Your task to perform on an android device: Open location settings Image 0: 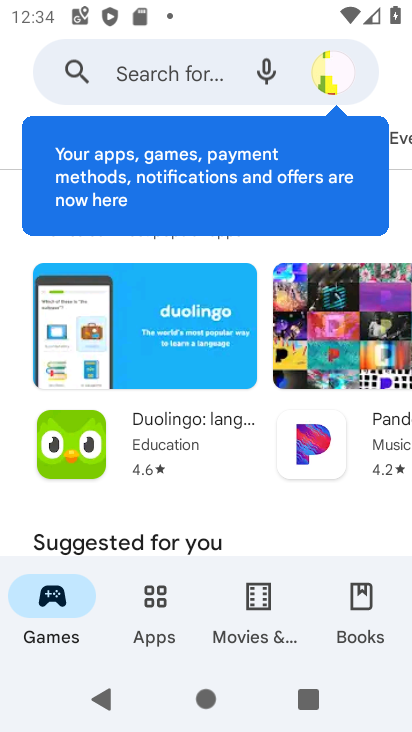
Step 0: press home button
Your task to perform on an android device: Open location settings Image 1: 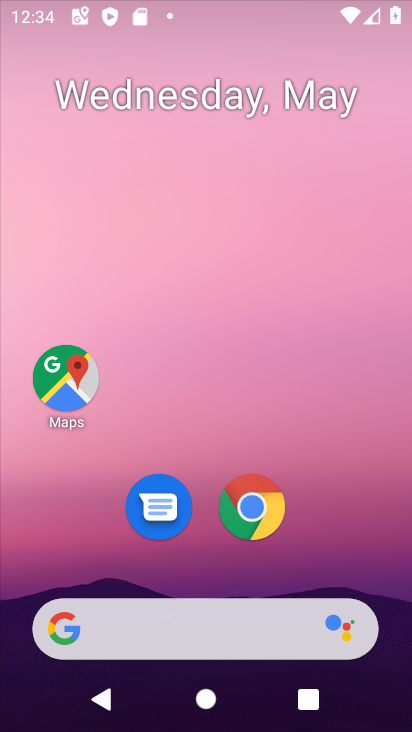
Step 1: drag from (225, 572) to (291, 222)
Your task to perform on an android device: Open location settings Image 2: 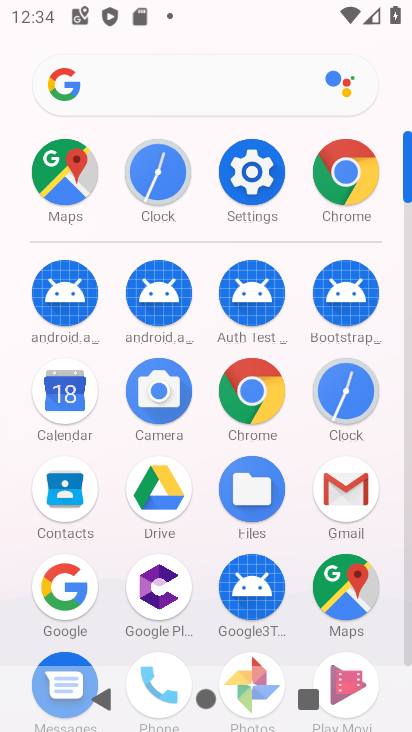
Step 2: click (234, 170)
Your task to perform on an android device: Open location settings Image 3: 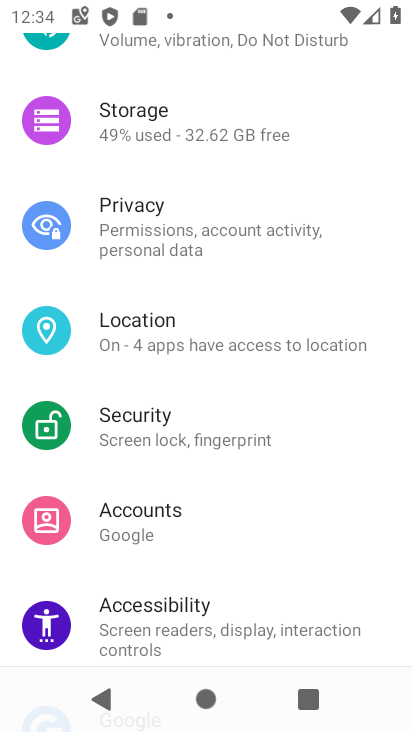
Step 3: click (190, 335)
Your task to perform on an android device: Open location settings Image 4: 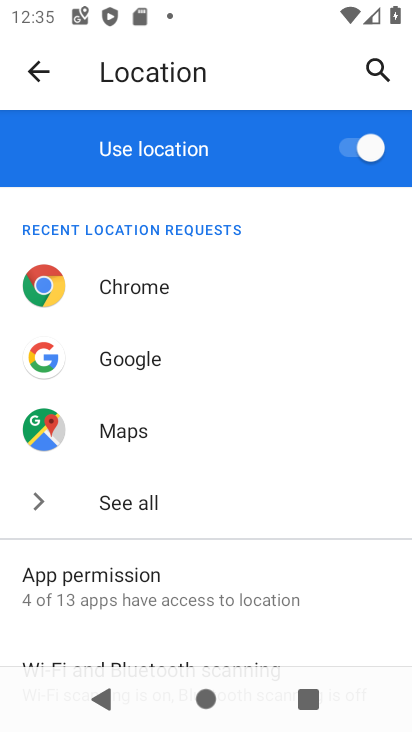
Step 4: task complete